Your task to perform on an android device: open wifi settings Image 0: 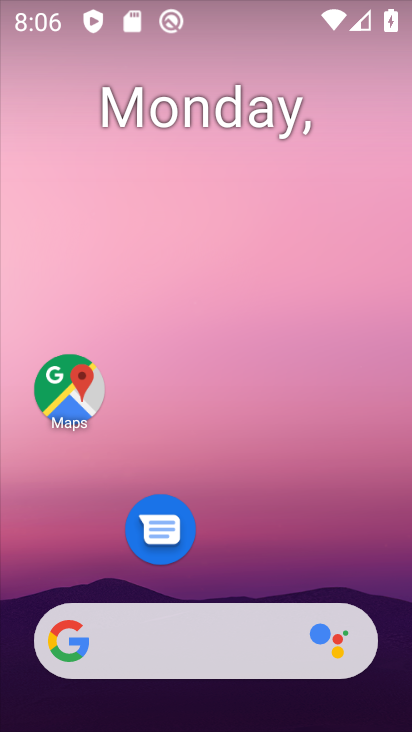
Step 0: click (235, 213)
Your task to perform on an android device: open wifi settings Image 1: 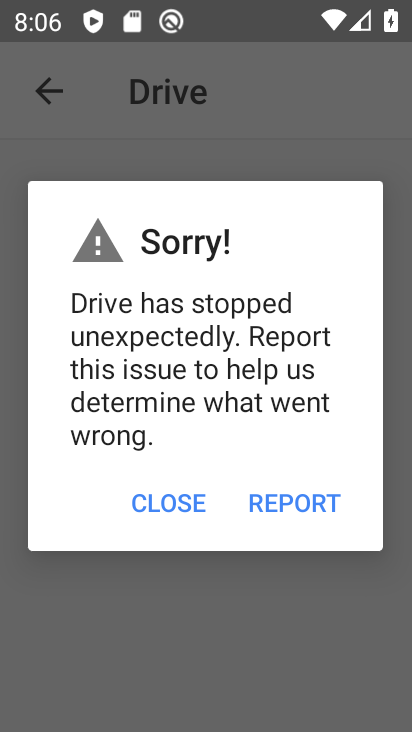
Step 1: press home button
Your task to perform on an android device: open wifi settings Image 2: 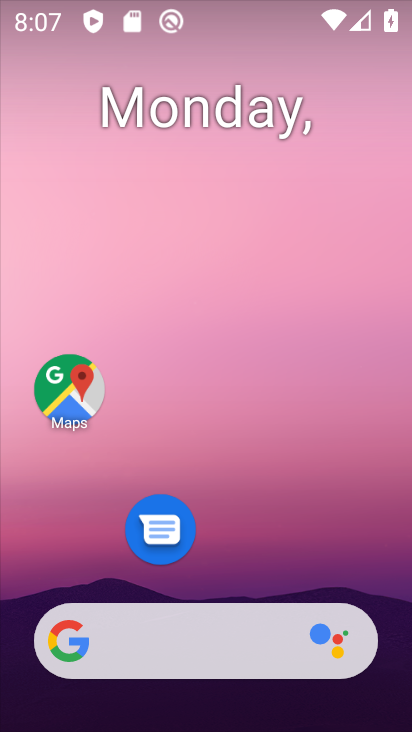
Step 2: drag from (230, 580) to (227, 159)
Your task to perform on an android device: open wifi settings Image 3: 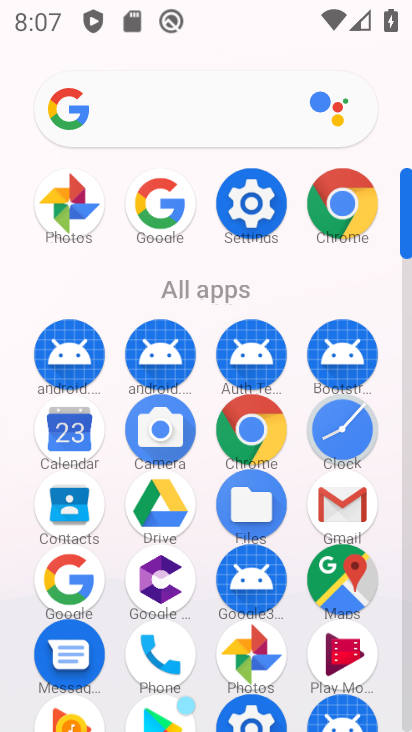
Step 3: click (237, 190)
Your task to perform on an android device: open wifi settings Image 4: 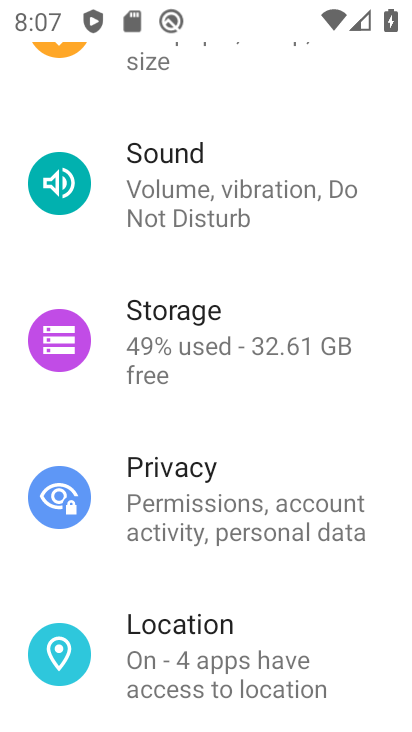
Step 4: drag from (237, 190) to (249, 670)
Your task to perform on an android device: open wifi settings Image 5: 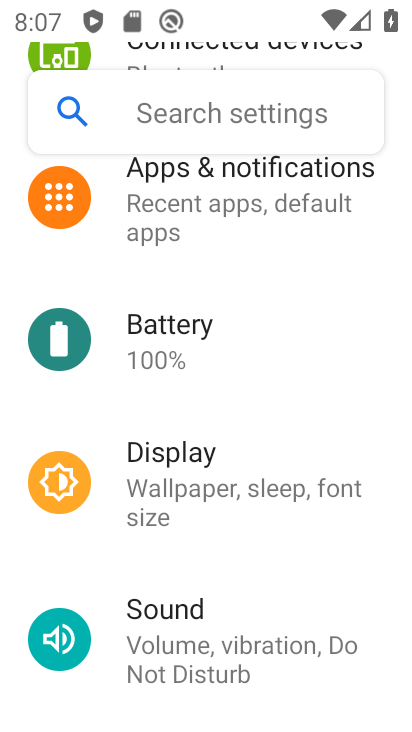
Step 5: drag from (201, 244) to (215, 677)
Your task to perform on an android device: open wifi settings Image 6: 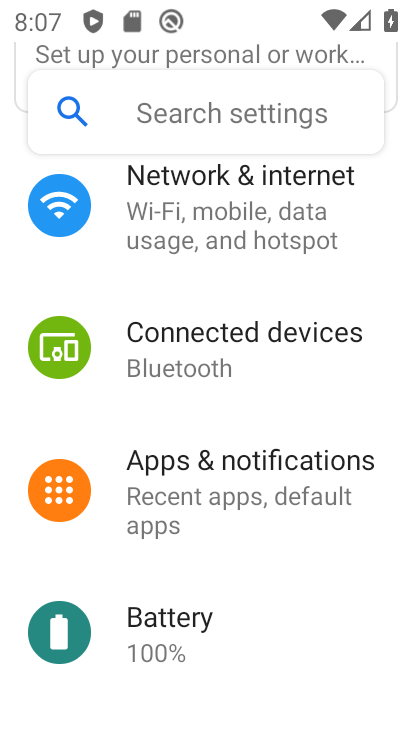
Step 6: click (188, 227)
Your task to perform on an android device: open wifi settings Image 7: 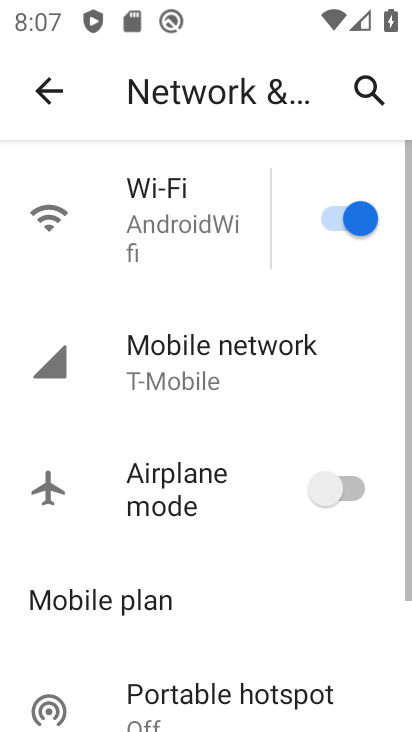
Step 7: click (188, 227)
Your task to perform on an android device: open wifi settings Image 8: 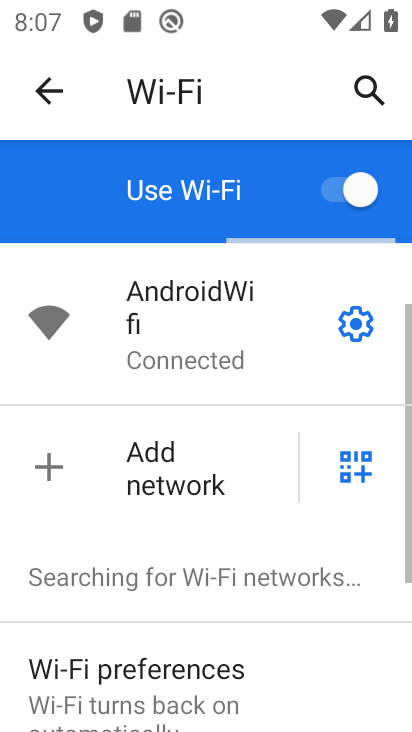
Step 8: task complete